Your task to perform on an android device: When is my next appointment? Image 0: 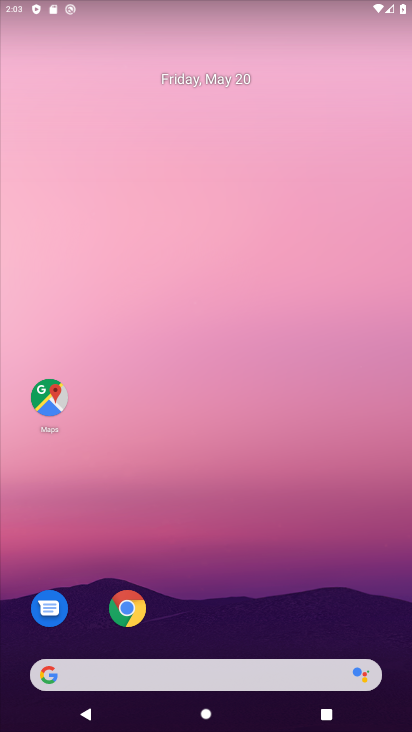
Step 0: drag from (217, 626) to (353, 46)
Your task to perform on an android device: When is my next appointment? Image 1: 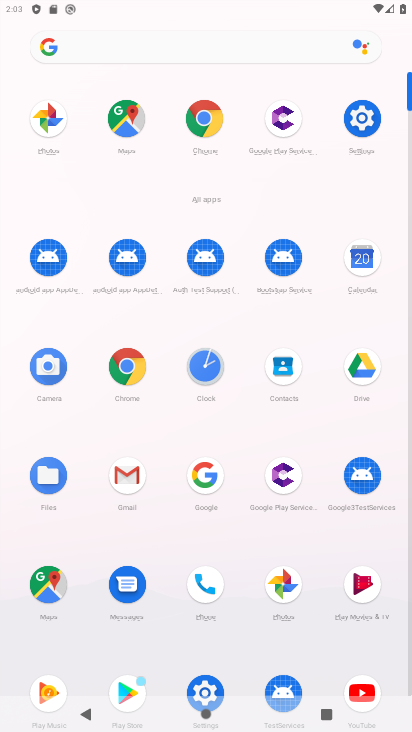
Step 1: click (353, 263)
Your task to perform on an android device: When is my next appointment? Image 2: 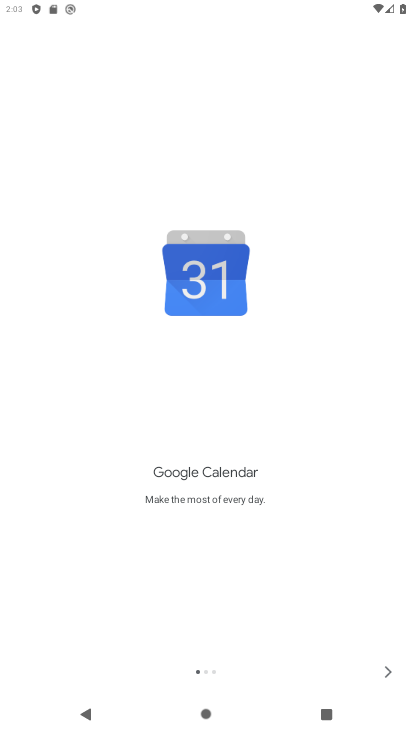
Step 2: click (389, 670)
Your task to perform on an android device: When is my next appointment? Image 3: 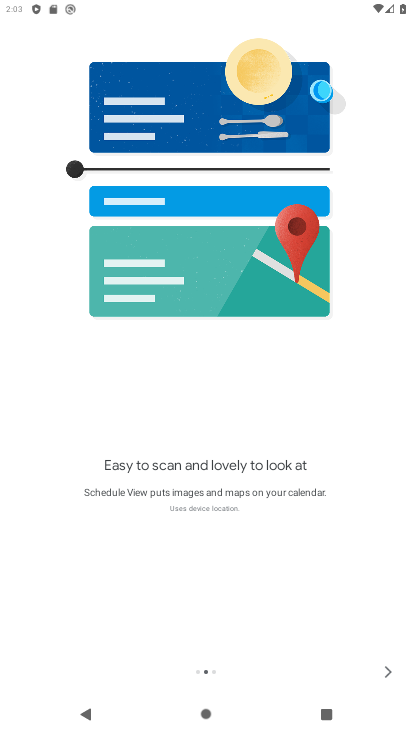
Step 3: click (389, 670)
Your task to perform on an android device: When is my next appointment? Image 4: 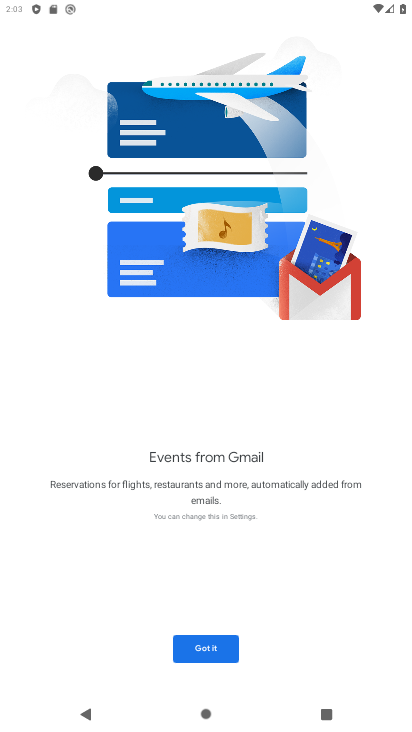
Step 4: click (188, 646)
Your task to perform on an android device: When is my next appointment? Image 5: 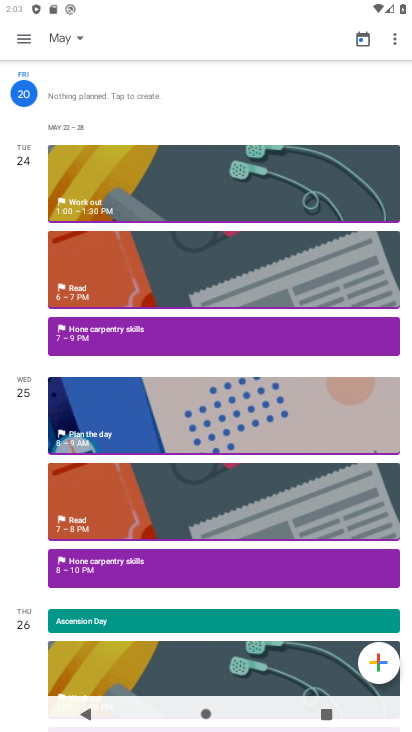
Step 5: task complete